Your task to perform on an android device: toggle improve location accuracy Image 0: 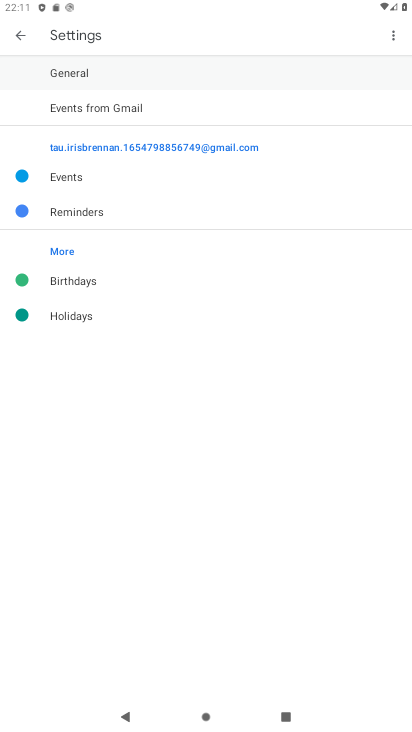
Step 0: press home button
Your task to perform on an android device: toggle improve location accuracy Image 1: 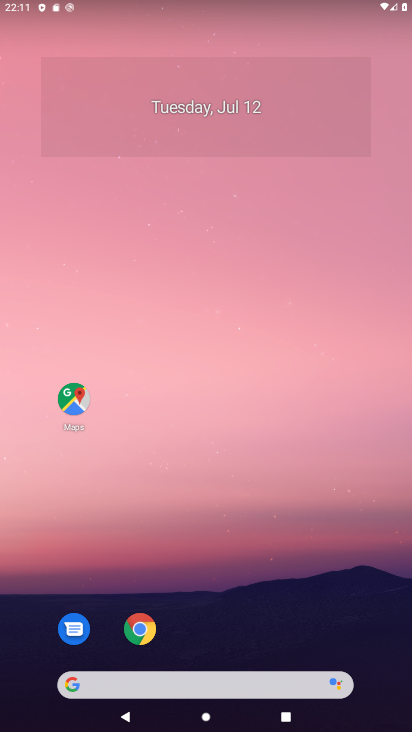
Step 1: drag from (290, 598) to (317, 61)
Your task to perform on an android device: toggle improve location accuracy Image 2: 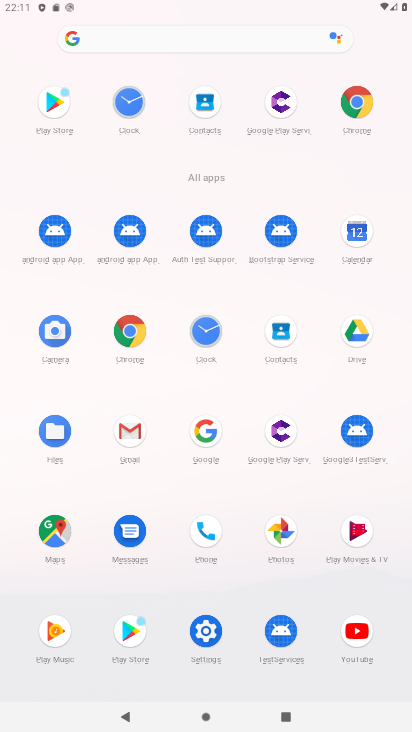
Step 2: click (209, 639)
Your task to perform on an android device: toggle improve location accuracy Image 3: 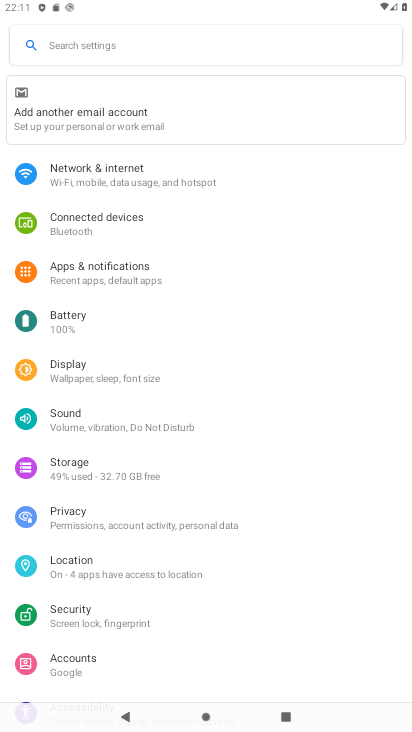
Step 3: drag from (122, 636) to (136, 421)
Your task to perform on an android device: toggle improve location accuracy Image 4: 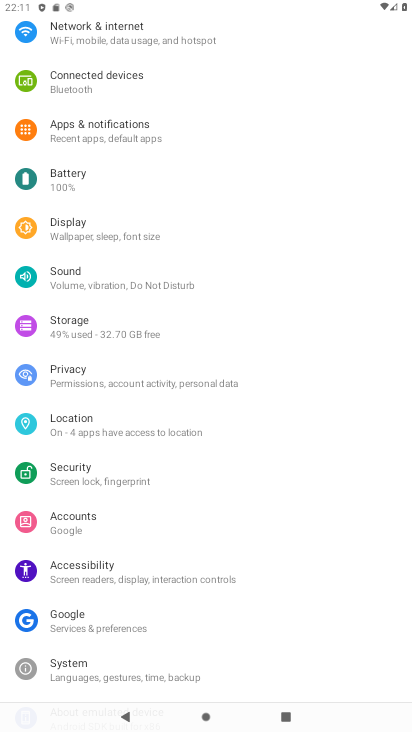
Step 4: click (53, 414)
Your task to perform on an android device: toggle improve location accuracy Image 5: 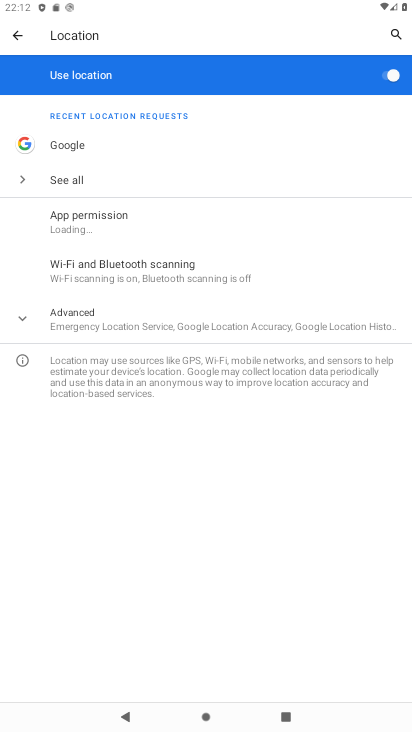
Step 5: click (124, 324)
Your task to perform on an android device: toggle improve location accuracy Image 6: 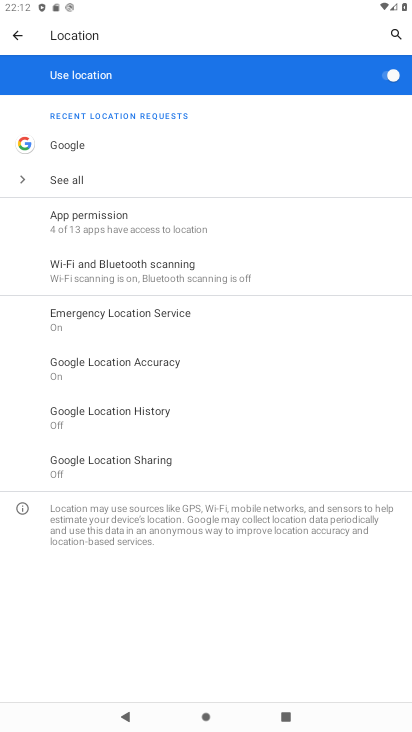
Step 6: click (142, 369)
Your task to perform on an android device: toggle improve location accuracy Image 7: 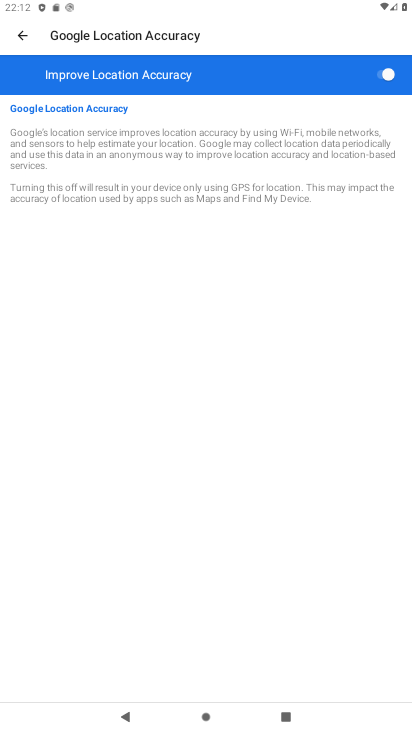
Step 7: click (393, 73)
Your task to perform on an android device: toggle improve location accuracy Image 8: 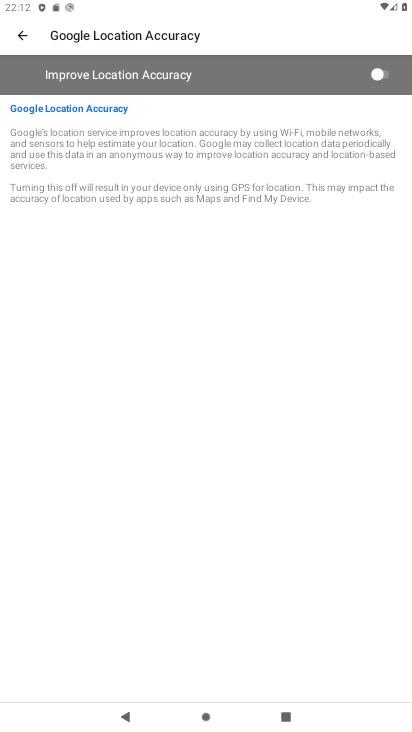
Step 8: task complete